Your task to perform on an android device: Search for Mexican restaurants on Maps Image 0: 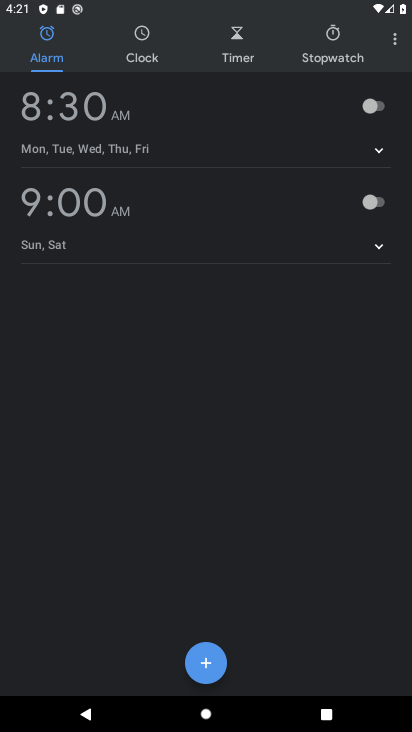
Step 0: press home button
Your task to perform on an android device: Search for Mexican restaurants on Maps Image 1: 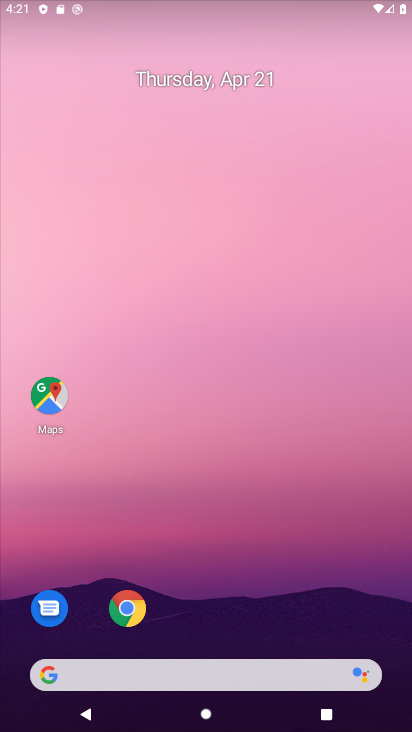
Step 1: click (59, 401)
Your task to perform on an android device: Search for Mexican restaurants on Maps Image 2: 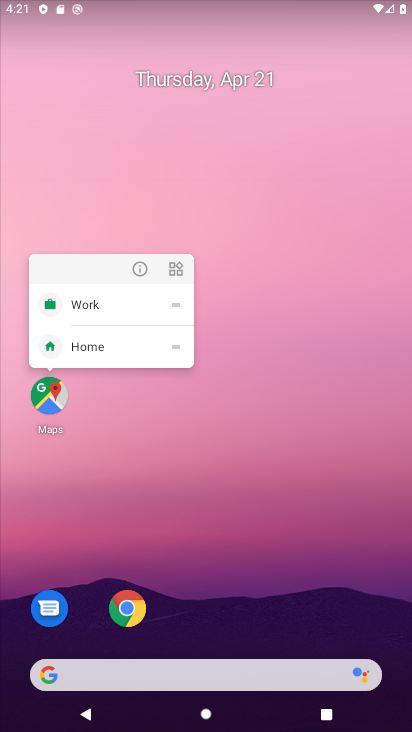
Step 2: click (35, 414)
Your task to perform on an android device: Search for Mexican restaurants on Maps Image 3: 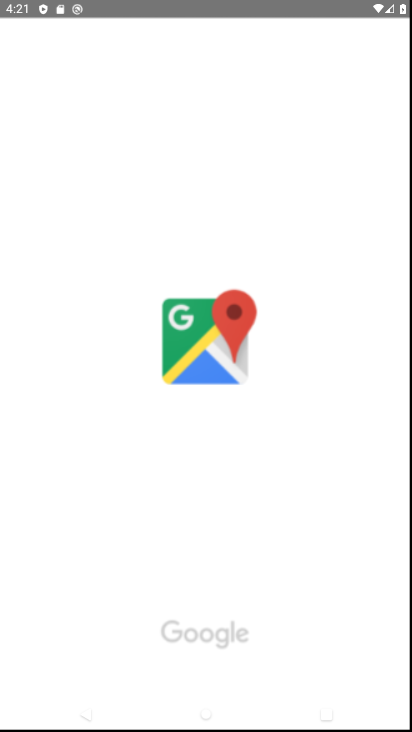
Step 3: type "mexican restaurants"
Your task to perform on an android device: Search for Mexican restaurants on Maps Image 4: 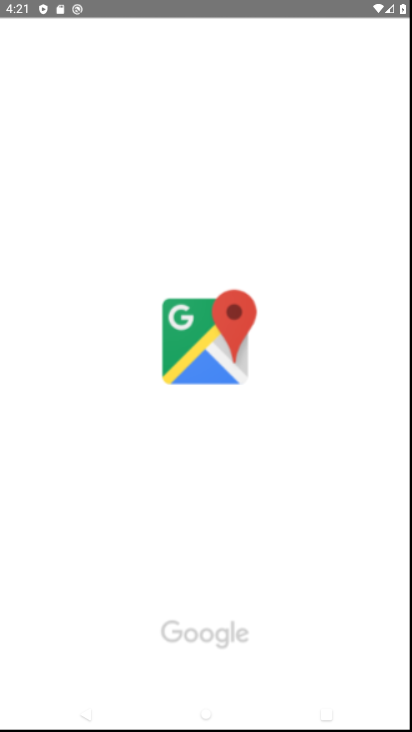
Step 4: task complete